Your task to perform on an android device: toggle translation in the chrome app Image 0: 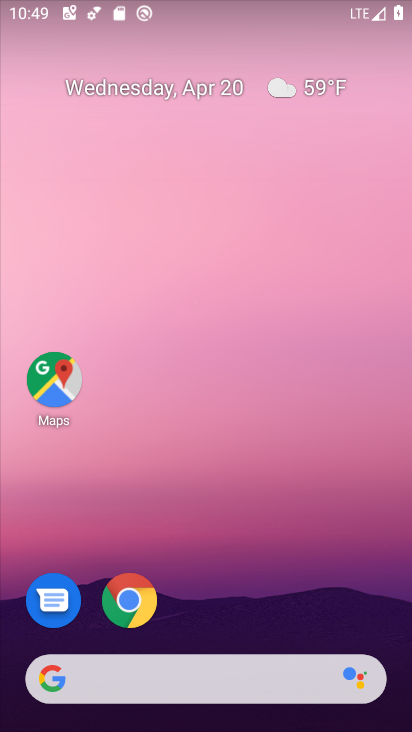
Step 0: drag from (283, 566) to (222, 42)
Your task to perform on an android device: toggle translation in the chrome app Image 1: 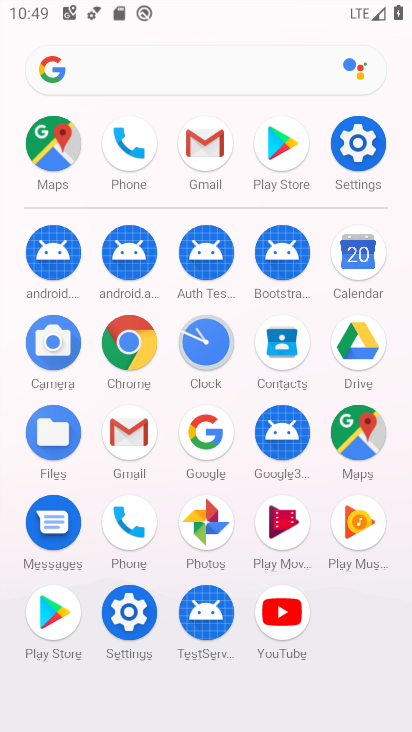
Step 1: click (145, 346)
Your task to perform on an android device: toggle translation in the chrome app Image 2: 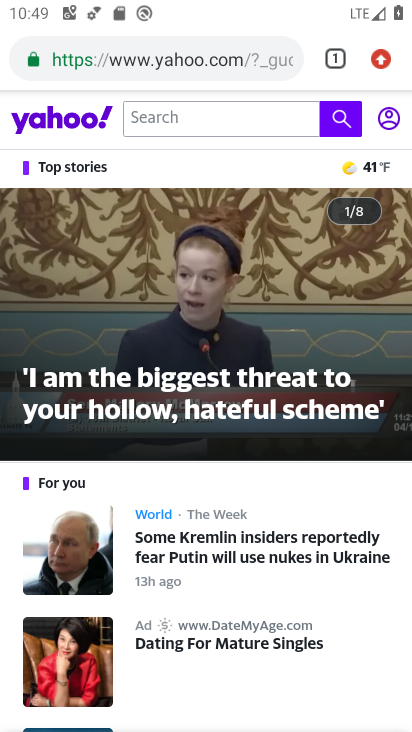
Step 2: press back button
Your task to perform on an android device: toggle translation in the chrome app Image 3: 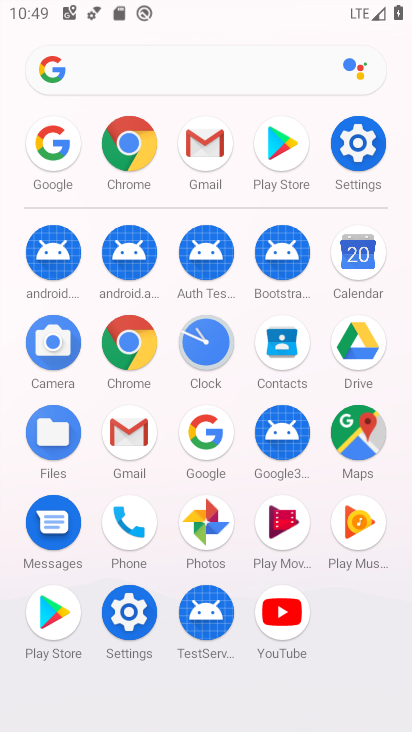
Step 3: click (148, 334)
Your task to perform on an android device: toggle translation in the chrome app Image 4: 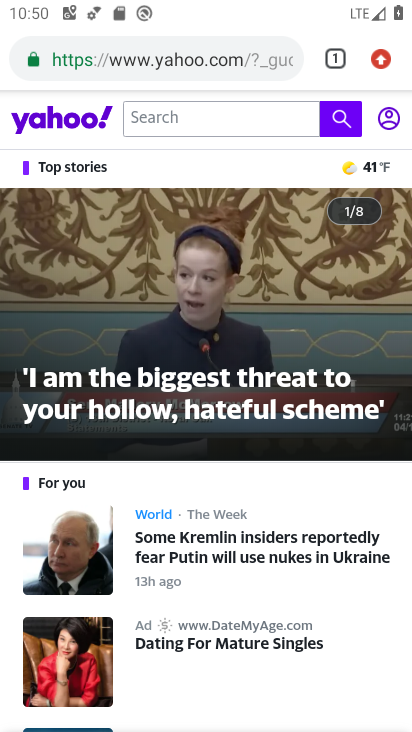
Step 4: click (383, 56)
Your task to perform on an android device: toggle translation in the chrome app Image 5: 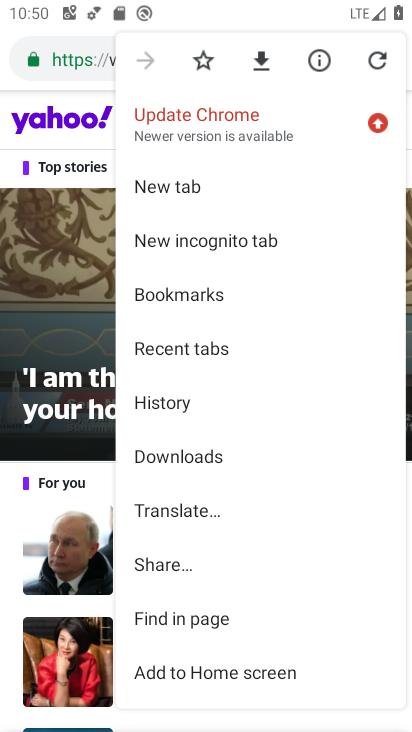
Step 5: drag from (231, 602) to (243, 286)
Your task to perform on an android device: toggle translation in the chrome app Image 6: 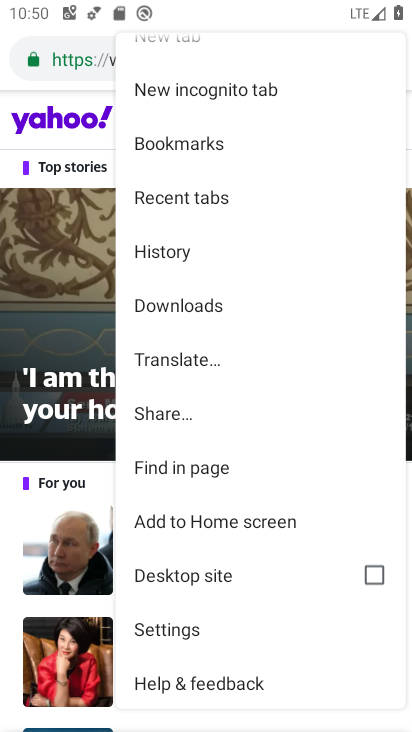
Step 6: click (254, 626)
Your task to perform on an android device: toggle translation in the chrome app Image 7: 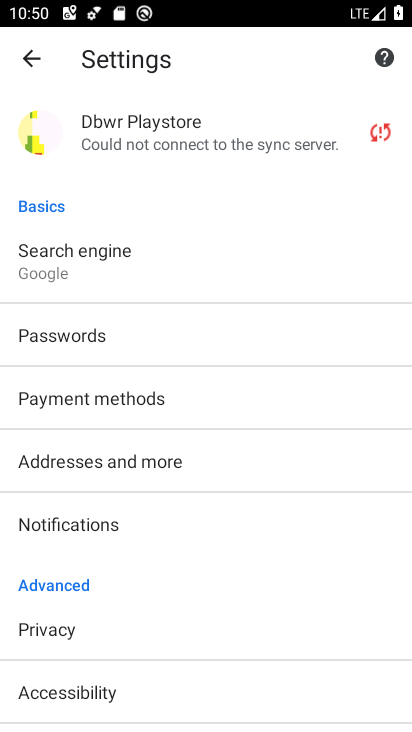
Step 7: drag from (259, 548) to (263, 173)
Your task to perform on an android device: toggle translation in the chrome app Image 8: 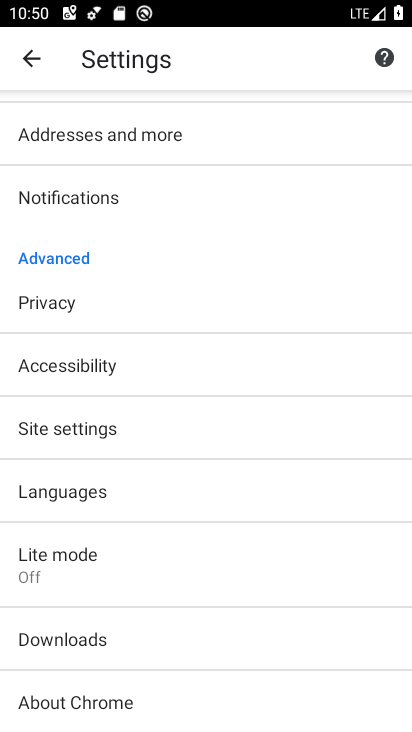
Step 8: click (208, 485)
Your task to perform on an android device: toggle translation in the chrome app Image 9: 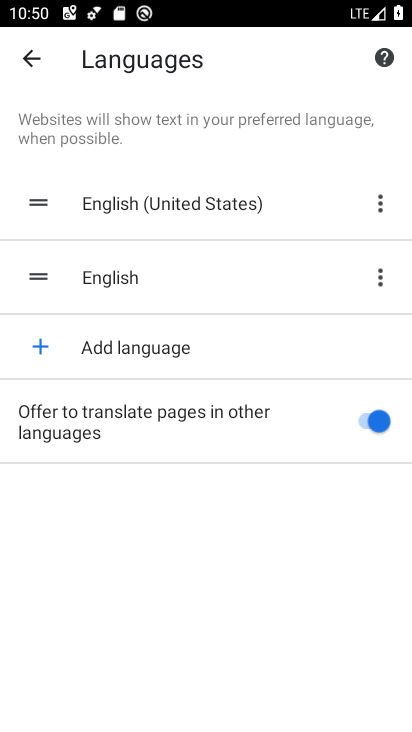
Step 9: click (361, 417)
Your task to perform on an android device: toggle translation in the chrome app Image 10: 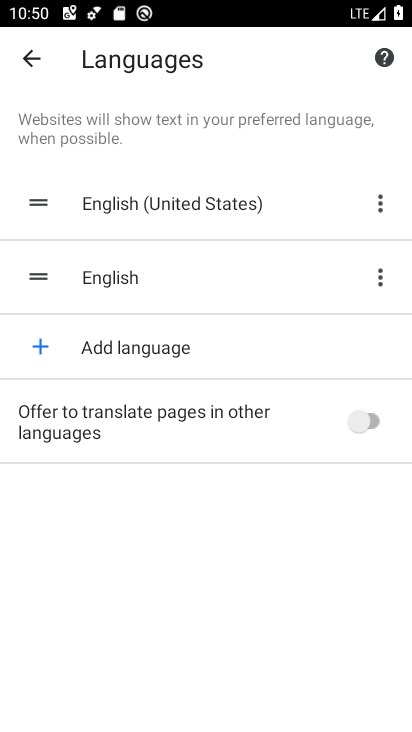
Step 10: task complete